Your task to perform on an android device: turn off location history Image 0: 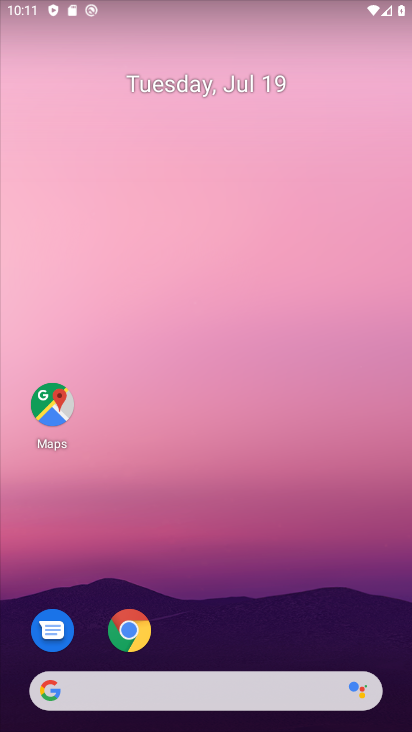
Step 0: drag from (256, 588) to (233, 281)
Your task to perform on an android device: turn off location history Image 1: 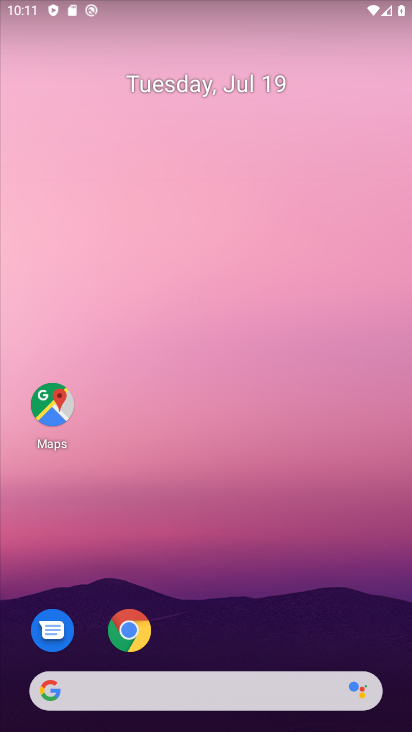
Step 1: drag from (223, 671) to (192, 180)
Your task to perform on an android device: turn off location history Image 2: 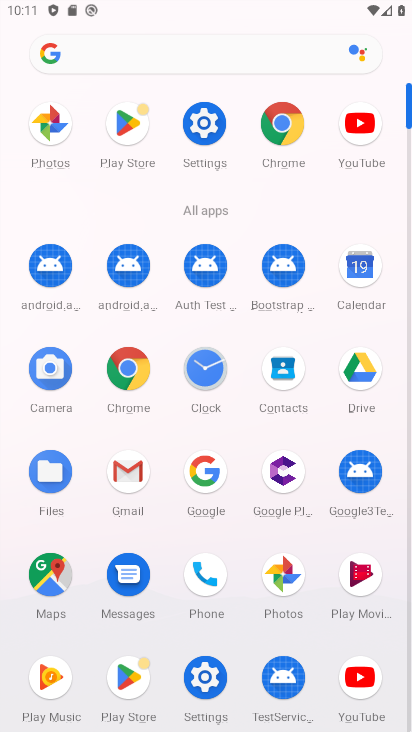
Step 2: click (203, 114)
Your task to perform on an android device: turn off location history Image 3: 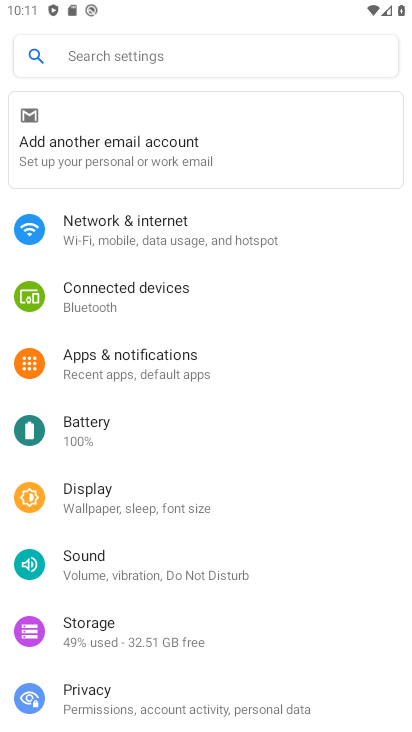
Step 3: drag from (110, 695) to (80, 358)
Your task to perform on an android device: turn off location history Image 4: 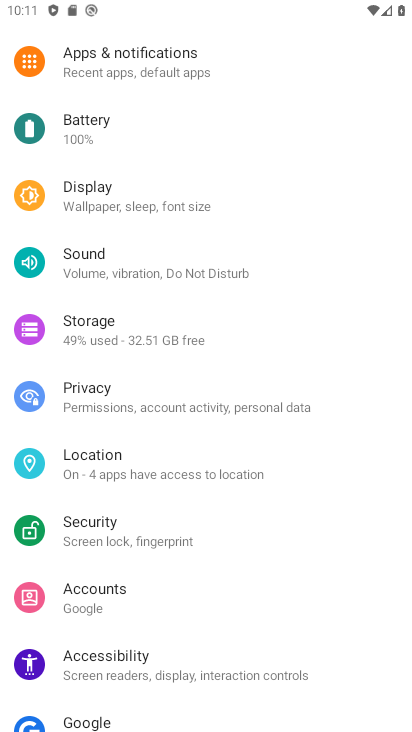
Step 4: click (96, 464)
Your task to perform on an android device: turn off location history Image 5: 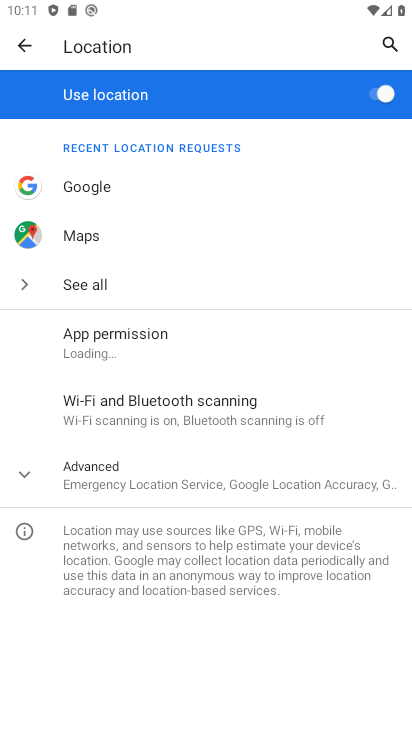
Step 5: click (133, 465)
Your task to perform on an android device: turn off location history Image 6: 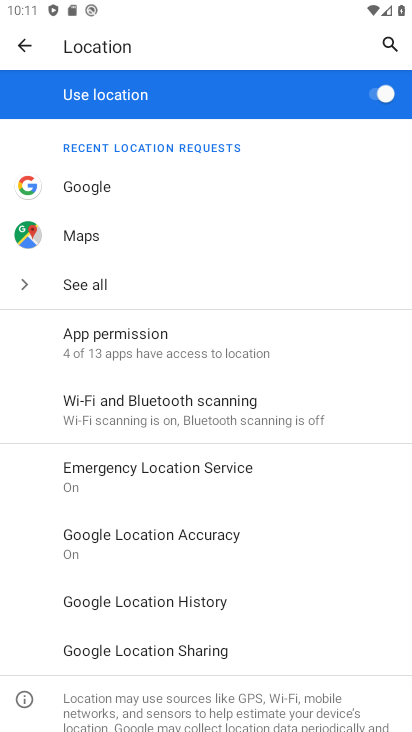
Step 6: click (153, 591)
Your task to perform on an android device: turn off location history Image 7: 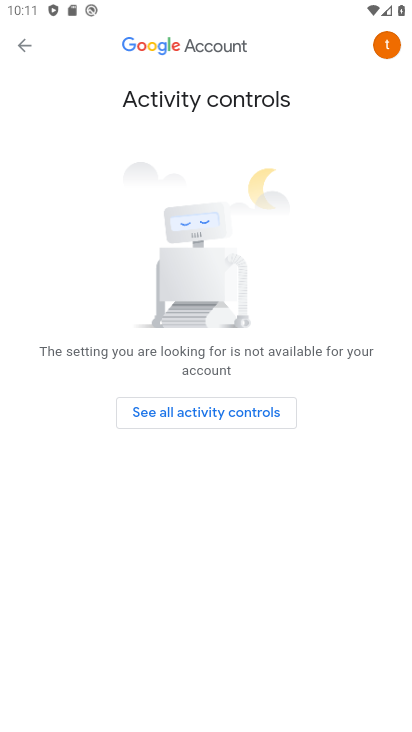
Step 7: click (205, 408)
Your task to perform on an android device: turn off location history Image 8: 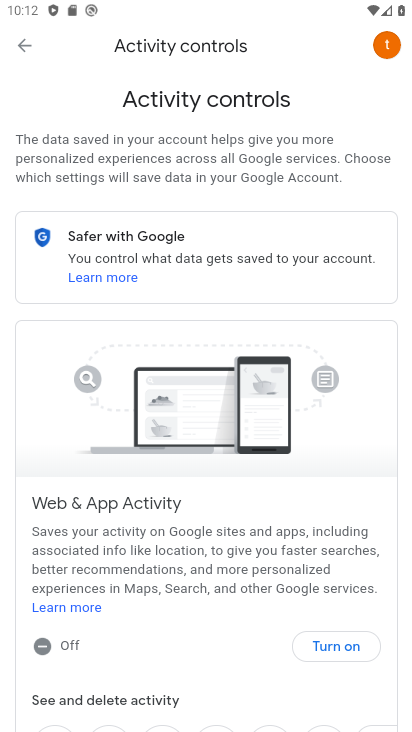
Step 8: task complete